Your task to perform on an android device: turn off smart reply in the gmail app Image 0: 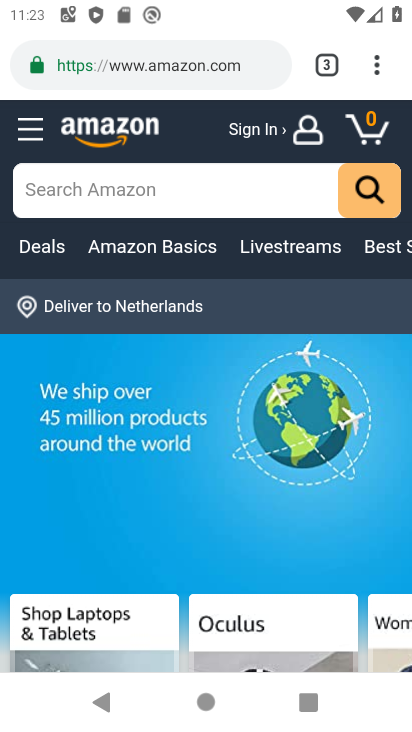
Step 0: press home button
Your task to perform on an android device: turn off smart reply in the gmail app Image 1: 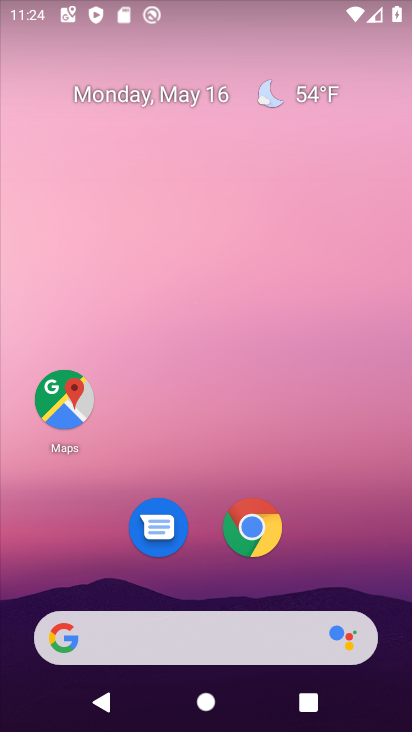
Step 1: drag from (254, 682) to (224, 199)
Your task to perform on an android device: turn off smart reply in the gmail app Image 2: 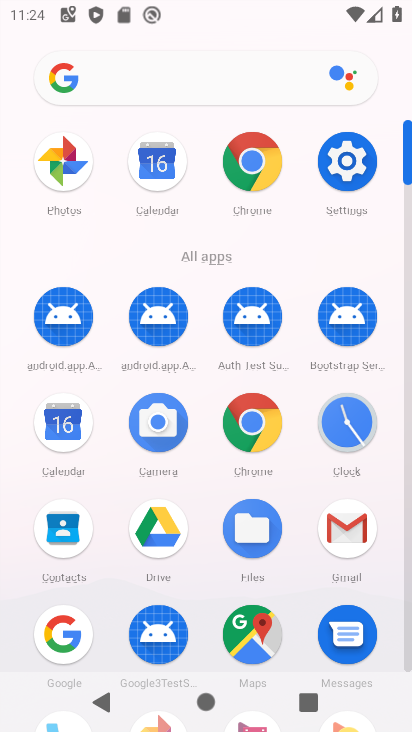
Step 2: click (360, 507)
Your task to perform on an android device: turn off smart reply in the gmail app Image 3: 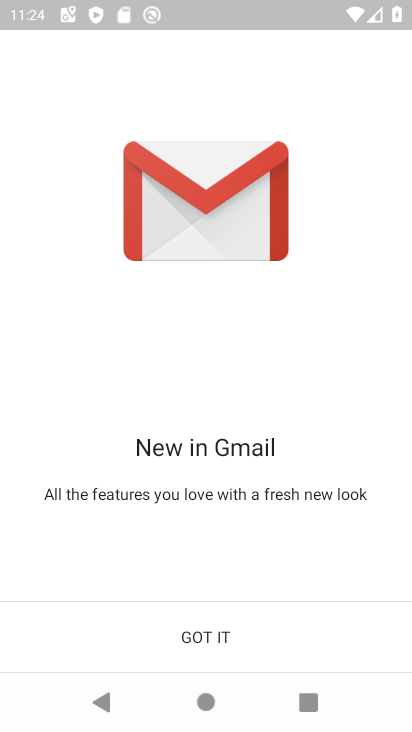
Step 3: click (229, 628)
Your task to perform on an android device: turn off smart reply in the gmail app Image 4: 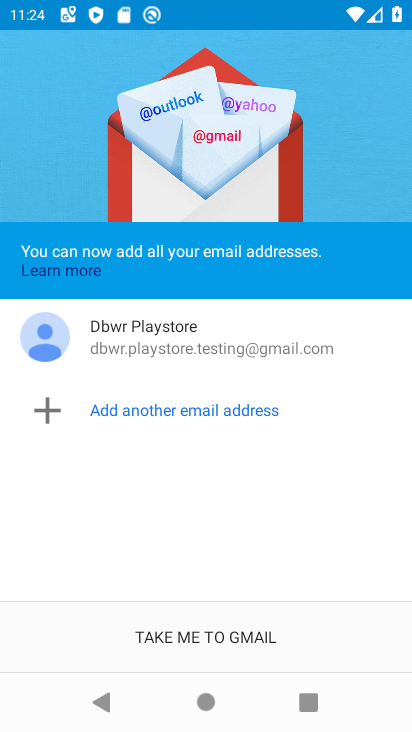
Step 4: click (219, 648)
Your task to perform on an android device: turn off smart reply in the gmail app Image 5: 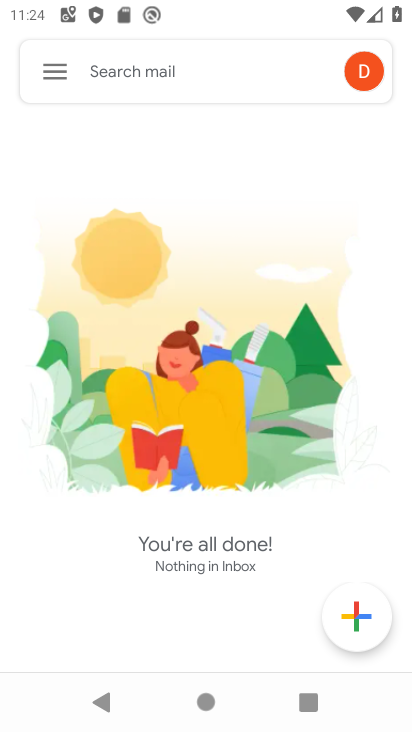
Step 5: click (63, 76)
Your task to perform on an android device: turn off smart reply in the gmail app Image 6: 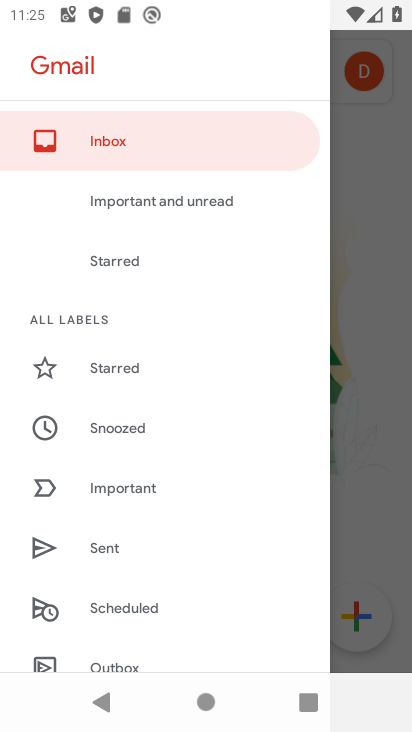
Step 6: drag from (145, 524) to (208, 191)
Your task to perform on an android device: turn off smart reply in the gmail app Image 7: 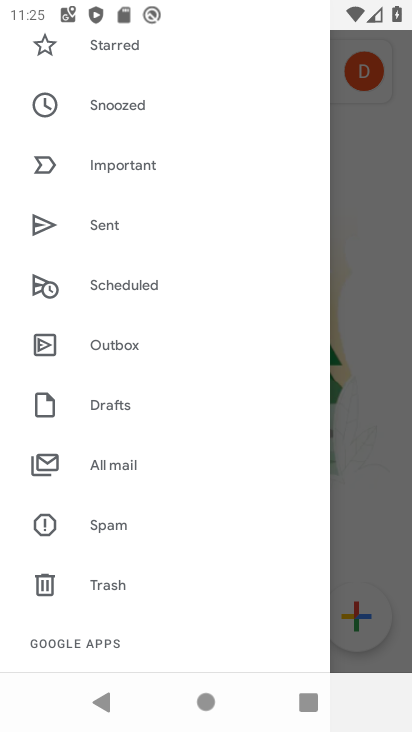
Step 7: drag from (171, 582) to (143, 418)
Your task to perform on an android device: turn off smart reply in the gmail app Image 8: 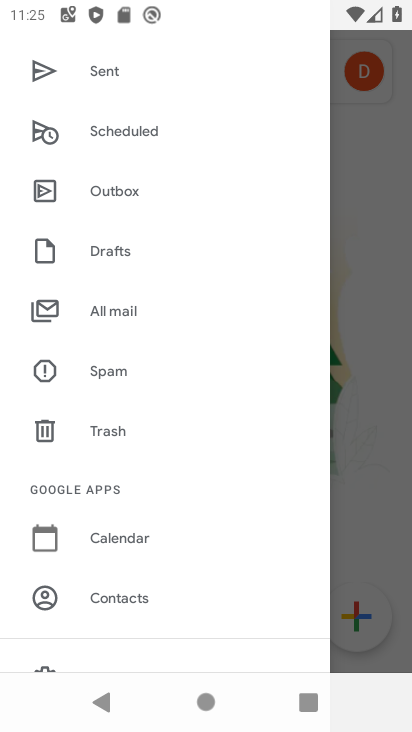
Step 8: drag from (162, 581) to (152, 533)
Your task to perform on an android device: turn off smart reply in the gmail app Image 9: 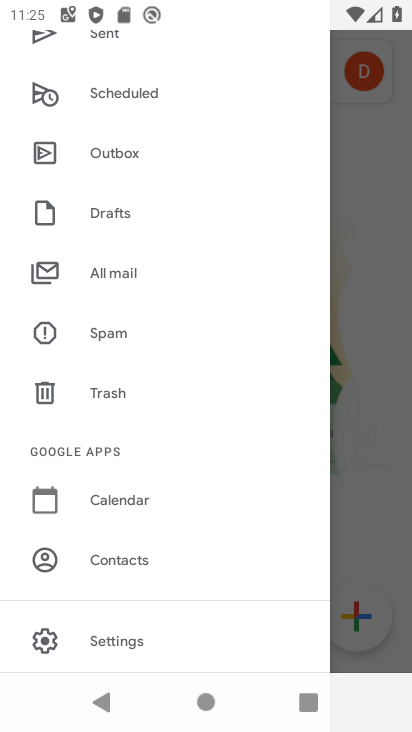
Step 9: click (131, 630)
Your task to perform on an android device: turn off smart reply in the gmail app Image 10: 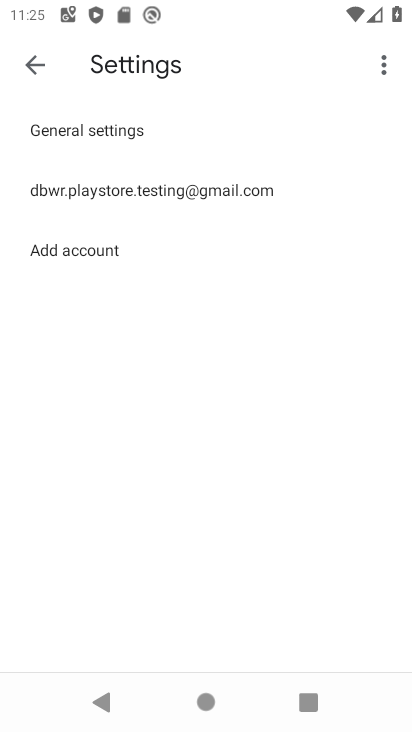
Step 10: click (90, 205)
Your task to perform on an android device: turn off smart reply in the gmail app Image 11: 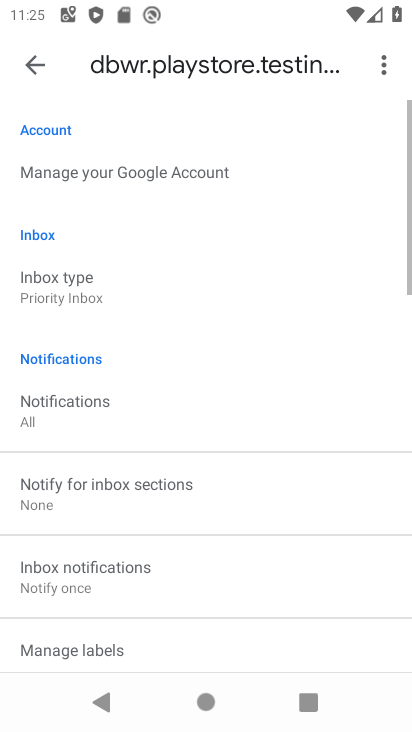
Step 11: drag from (240, 582) to (266, 275)
Your task to perform on an android device: turn off smart reply in the gmail app Image 12: 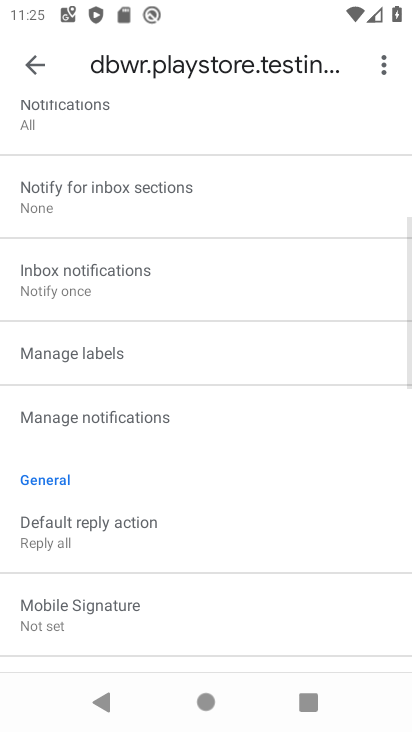
Step 12: drag from (264, 561) to (285, 249)
Your task to perform on an android device: turn off smart reply in the gmail app Image 13: 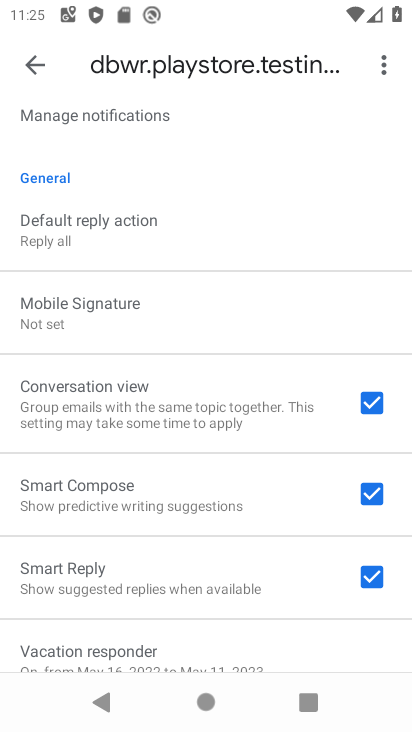
Step 13: click (373, 587)
Your task to perform on an android device: turn off smart reply in the gmail app Image 14: 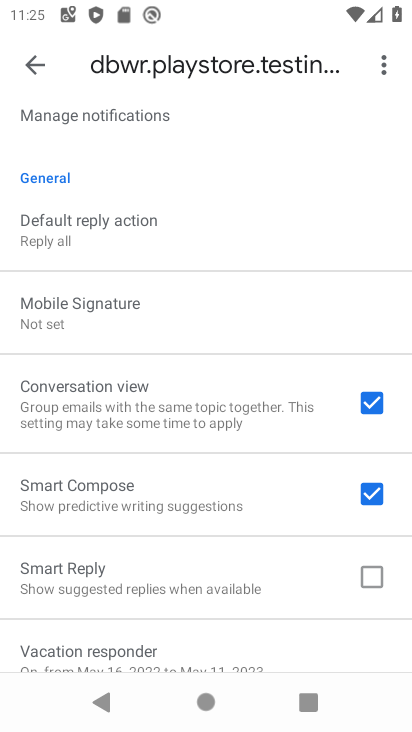
Step 14: task complete